Your task to perform on an android device: Open the stopwatch Image 0: 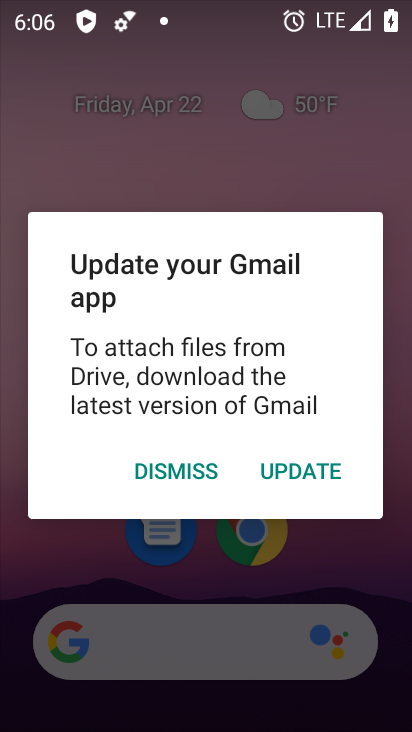
Step 0: press home button
Your task to perform on an android device: Open the stopwatch Image 1: 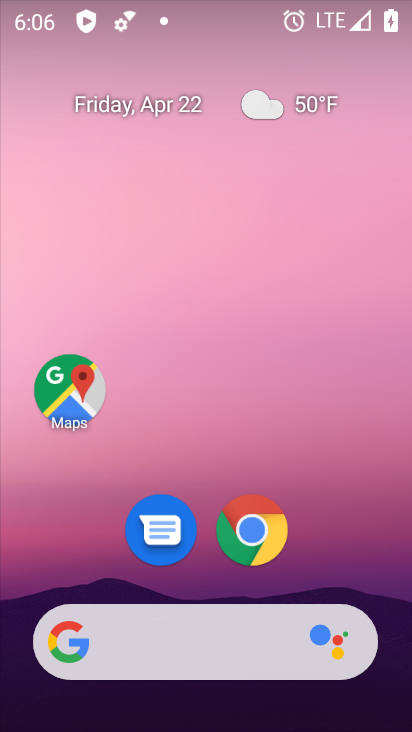
Step 1: drag from (314, 519) to (250, 35)
Your task to perform on an android device: Open the stopwatch Image 2: 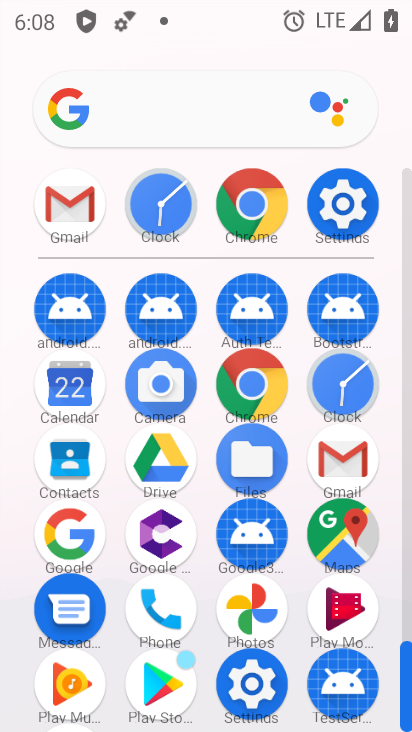
Step 2: click (340, 366)
Your task to perform on an android device: Open the stopwatch Image 3: 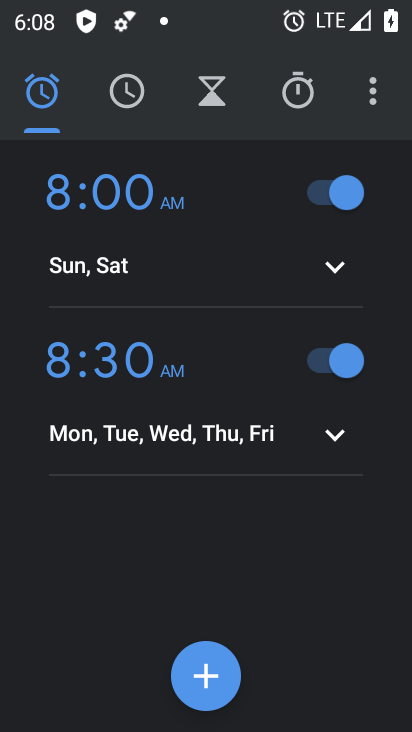
Step 3: click (299, 84)
Your task to perform on an android device: Open the stopwatch Image 4: 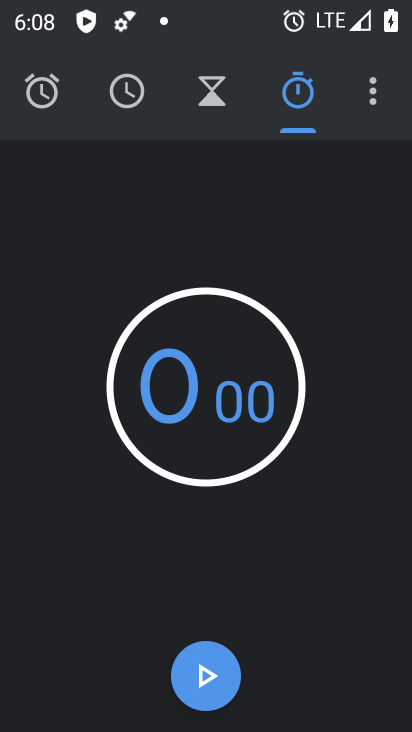
Step 4: click (205, 668)
Your task to perform on an android device: Open the stopwatch Image 5: 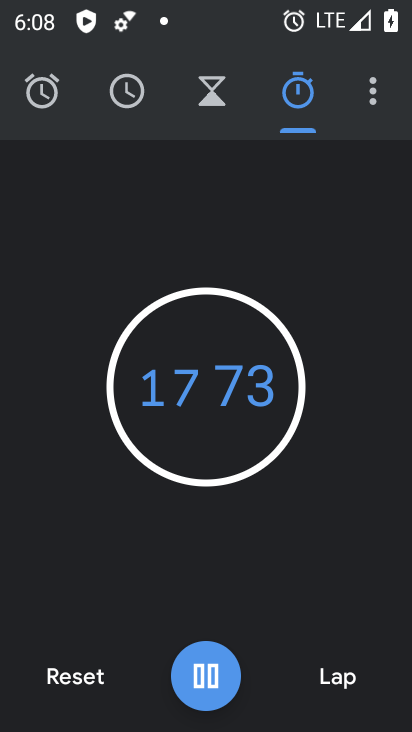
Step 5: task complete